Your task to perform on an android device: Open Chrome and go to settings Image 0: 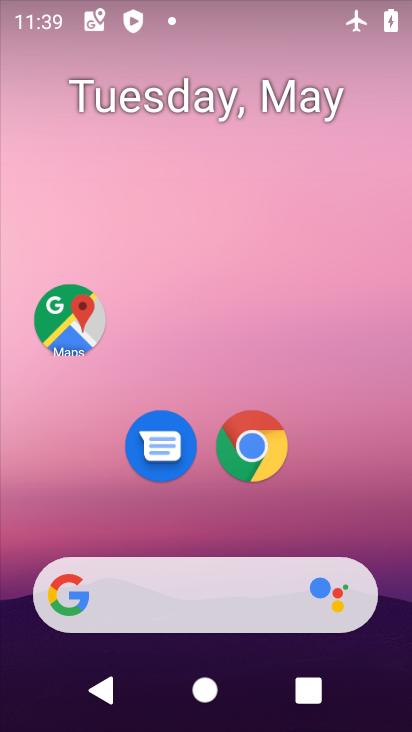
Step 0: click (246, 438)
Your task to perform on an android device: Open Chrome and go to settings Image 1: 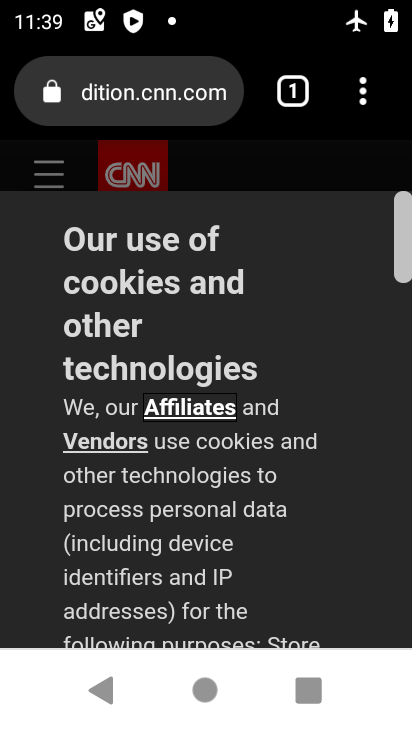
Step 1: click (364, 102)
Your task to perform on an android device: Open Chrome and go to settings Image 2: 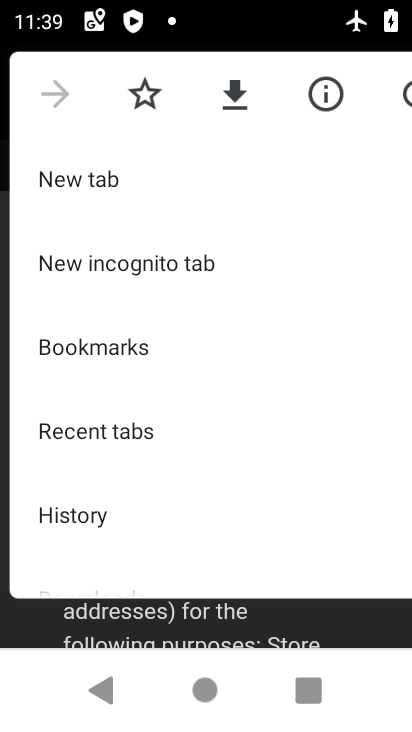
Step 2: drag from (108, 503) to (107, 146)
Your task to perform on an android device: Open Chrome and go to settings Image 3: 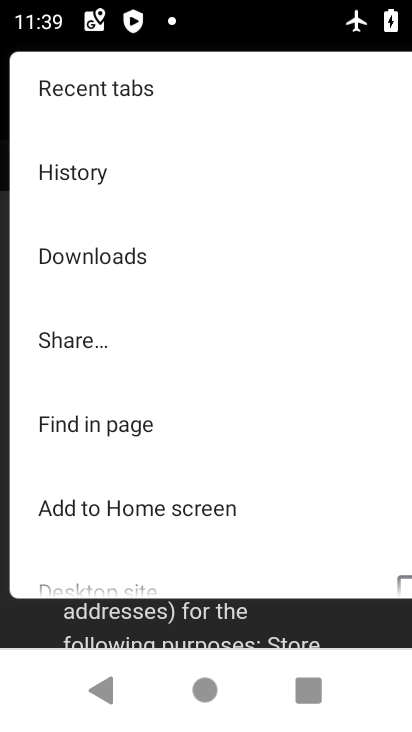
Step 3: drag from (86, 521) to (110, 239)
Your task to perform on an android device: Open Chrome and go to settings Image 4: 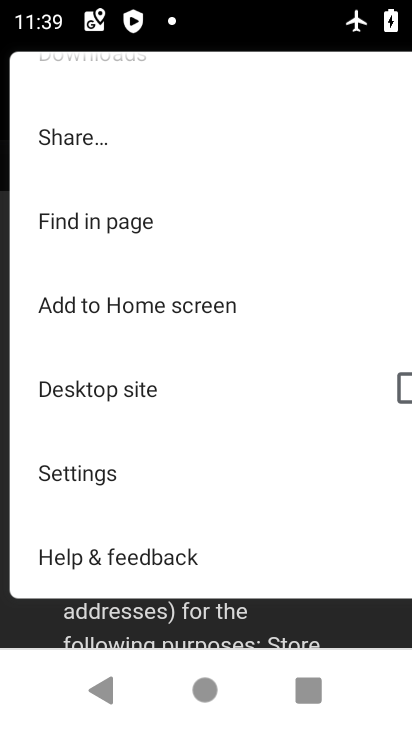
Step 4: click (100, 464)
Your task to perform on an android device: Open Chrome and go to settings Image 5: 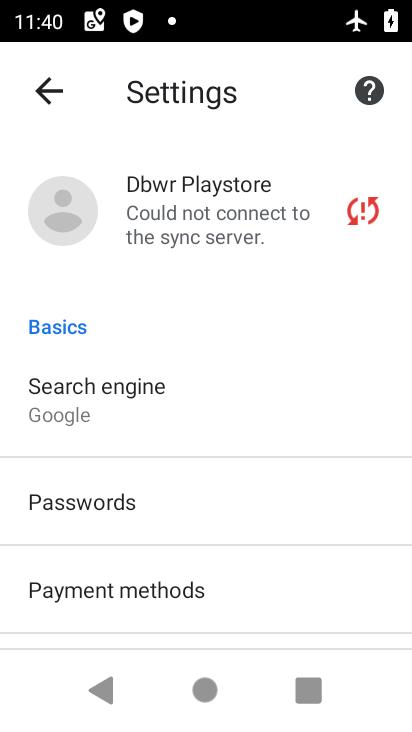
Step 5: task complete